Your task to perform on an android device: turn on the 12-hour format for clock Image 0: 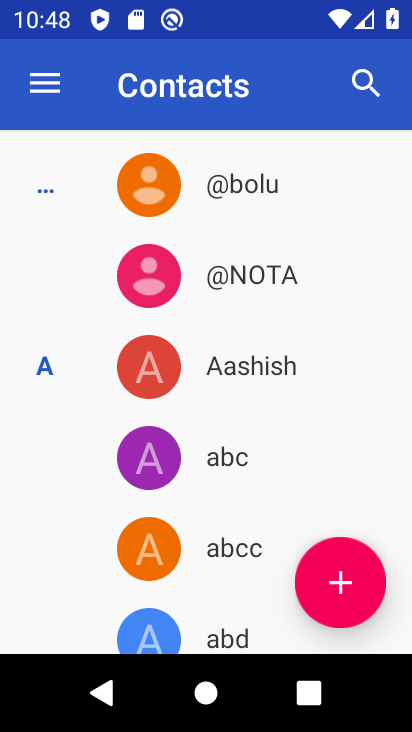
Step 0: press home button
Your task to perform on an android device: turn on the 12-hour format for clock Image 1: 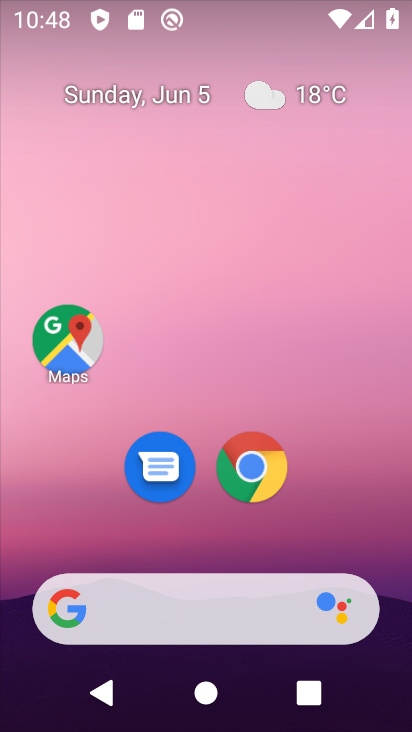
Step 1: drag from (214, 547) to (204, 11)
Your task to perform on an android device: turn on the 12-hour format for clock Image 2: 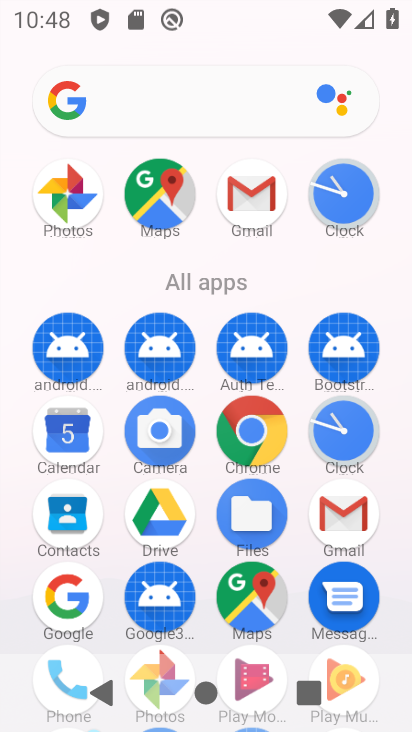
Step 2: click (348, 418)
Your task to perform on an android device: turn on the 12-hour format for clock Image 3: 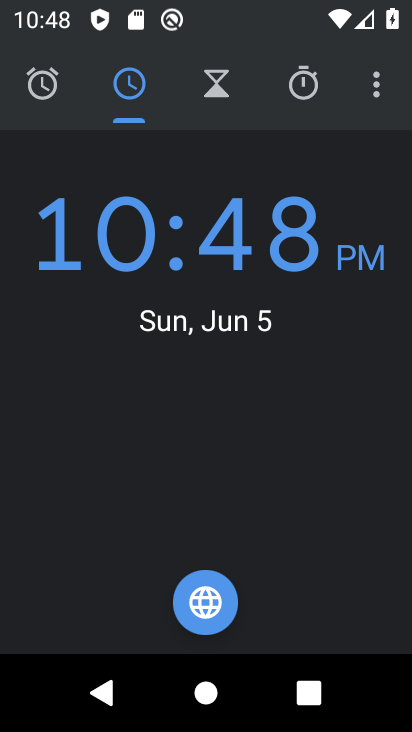
Step 3: click (379, 86)
Your task to perform on an android device: turn on the 12-hour format for clock Image 4: 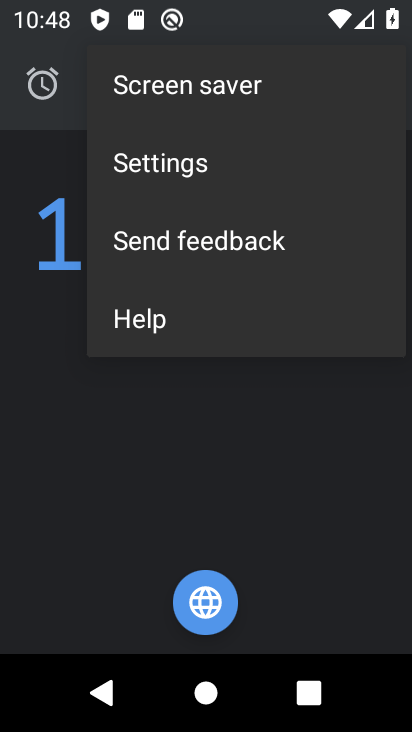
Step 4: click (203, 154)
Your task to perform on an android device: turn on the 12-hour format for clock Image 5: 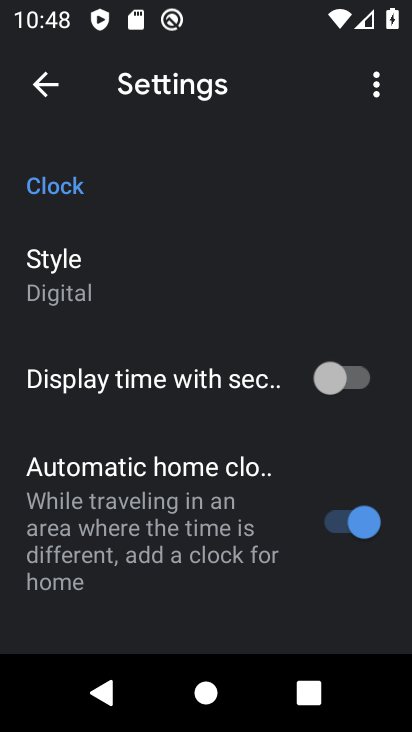
Step 5: drag from (247, 504) to (173, 38)
Your task to perform on an android device: turn on the 12-hour format for clock Image 6: 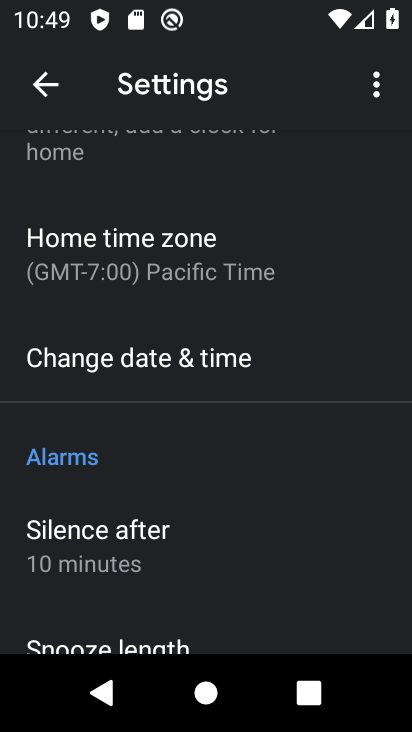
Step 6: click (134, 348)
Your task to perform on an android device: turn on the 12-hour format for clock Image 7: 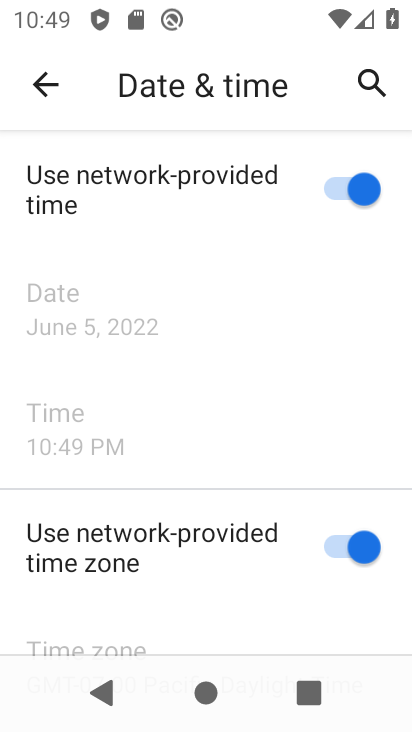
Step 7: task complete